Your task to perform on an android device: Go to battery settings Image 0: 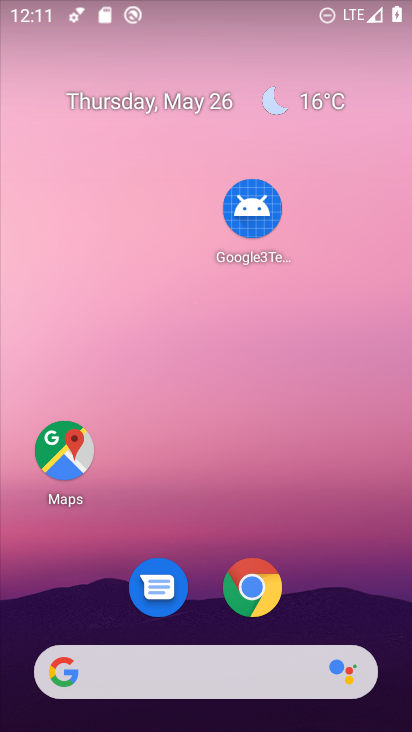
Step 0: drag from (132, 342) to (78, 0)
Your task to perform on an android device: Go to battery settings Image 1: 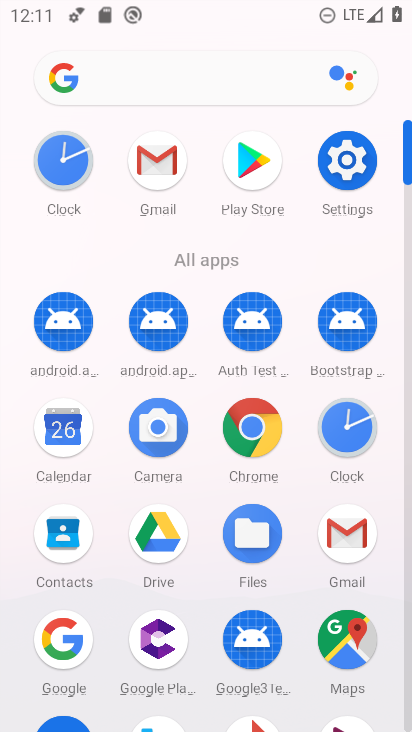
Step 1: click (351, 174)
Your task to perform on an android device: Go to battery settings Image 2: 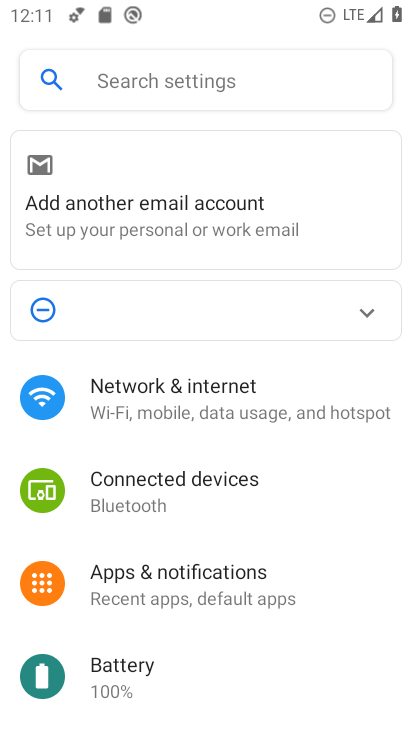
Step 2: click (141, 659)
Your task to perform on an android device: Go to battery settings Image 3: 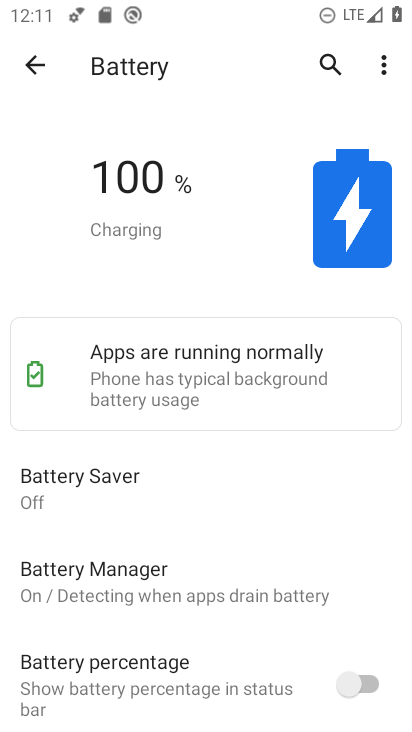
Step 3: task complete